Your task to perform on an android device: Open Google Image 0: 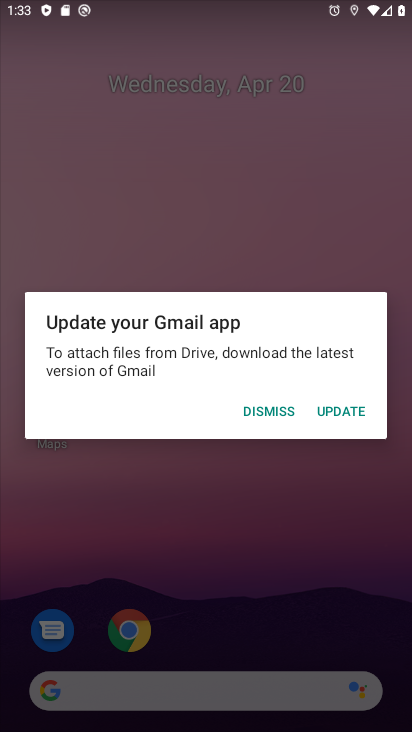
Step 0: press home button
Your task to perform on an android device: Open Google Image 1: 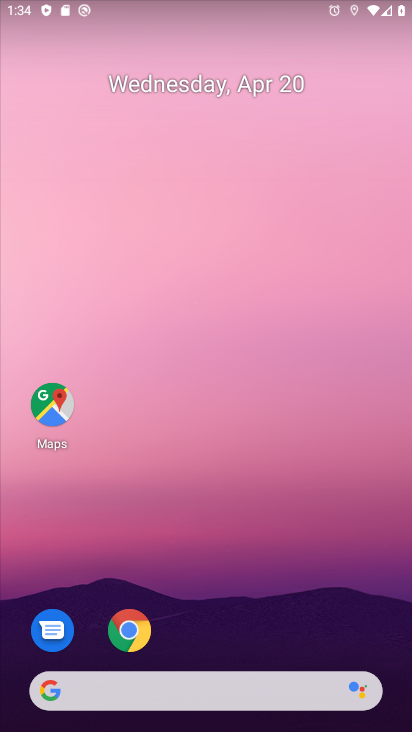
Step 1: drag from (188, 646) to (57, 56)
Your task to perform on an android device: Open Google Image 2: 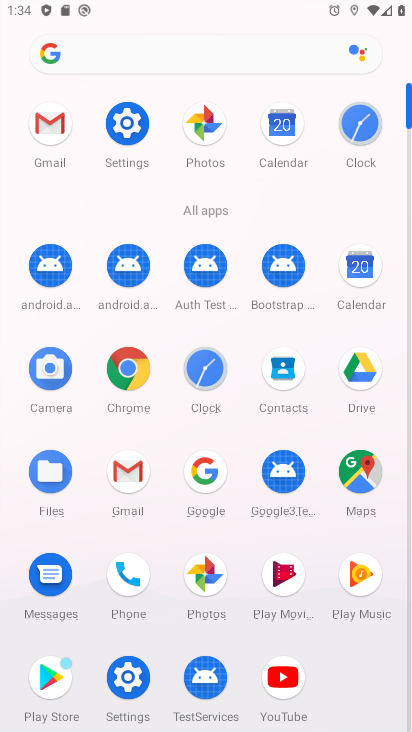
Step 2: click (205, 476)
Your task to perform on an android device: Open Google Image 3: 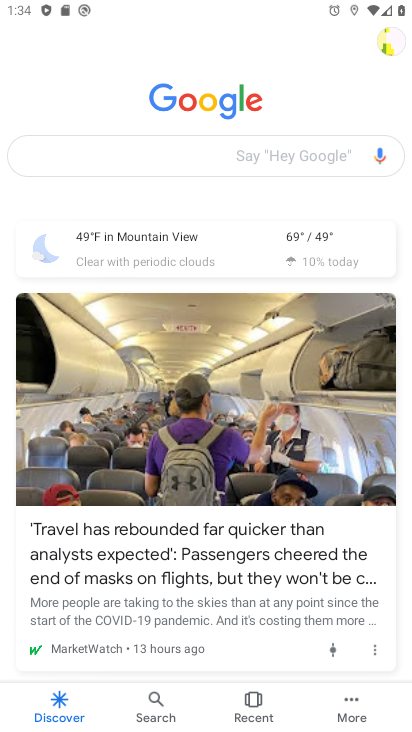
Step 3: task complete